Your task to perform on an android device: turn off priority inbox in the gmail app Image 0: 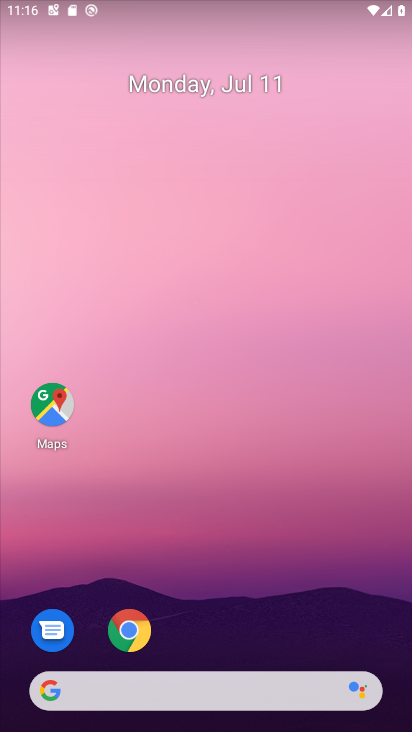
Step 0: drag from (253, 638) to (328, 12)
Your task to perform on an android device: turn off priority inbox in the gmail app Image 1: 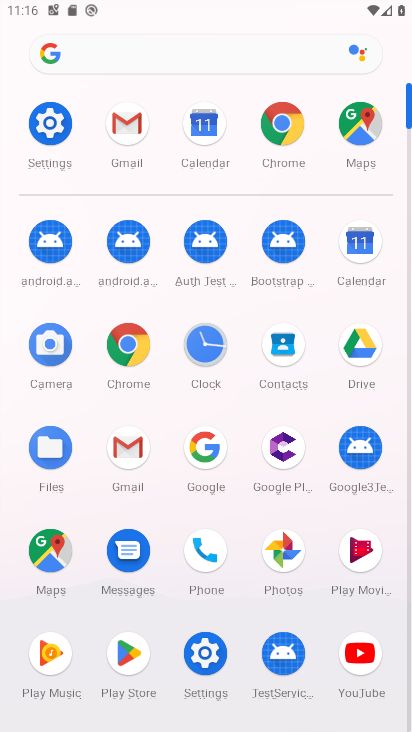
Step 1: click (129, 458)
Your task to perform on an android device: turn off priority inbox in the gmail app Image 2: 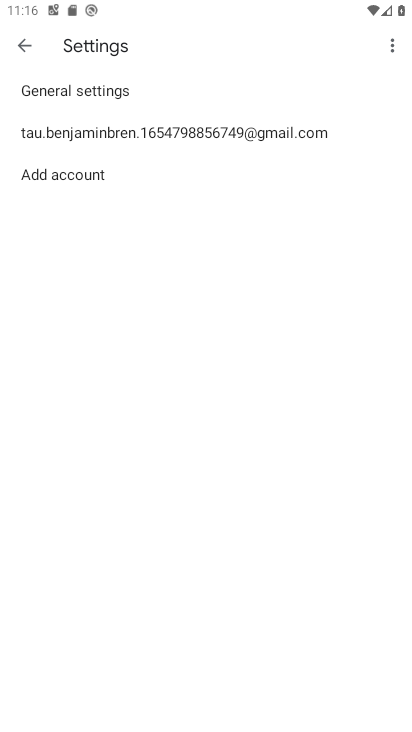
Step 2: click (147, 134)
Your task to perform on an android device: turn off priority inbox in the gmail app Image 3: 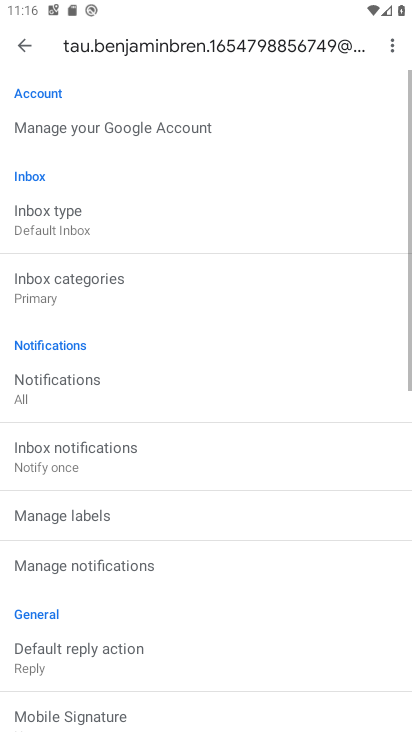
Step 3: click (92, 234)
Your task to perform on an android device: turn off priority inbox in the gmail app Image 4: 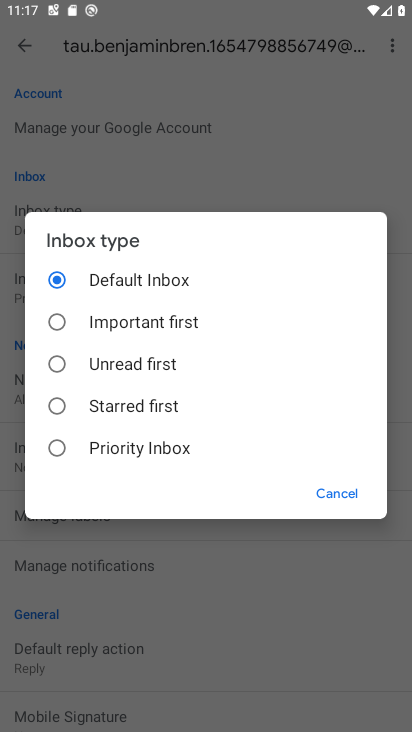
Step 4: click (109, 327)
Your task to perform on an android device: turn off priority inbox in the gmail app Image 5: 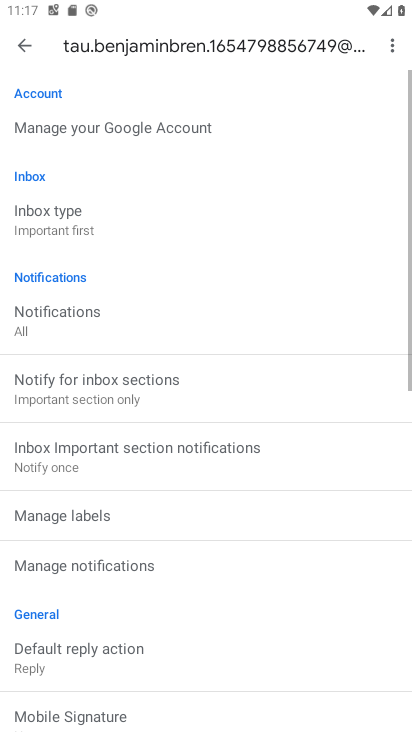
Step 5: task complete